Your task to perform on an android device: toggle notification dots Image 0: 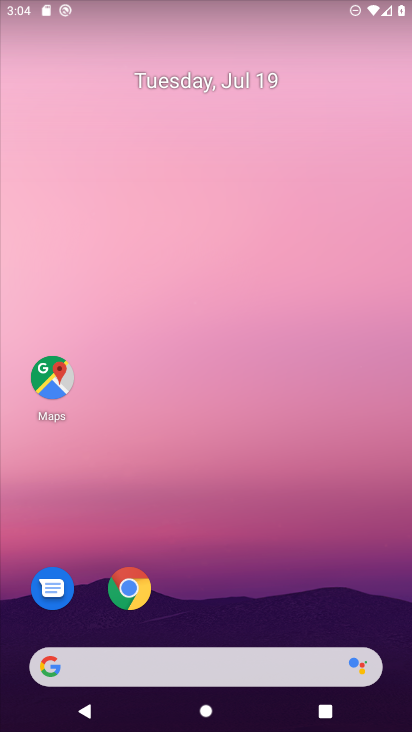
Step 0: drag from (183, 101) to (230, 45)
Your task to perform on an android device: toggle notification dots Image 1: 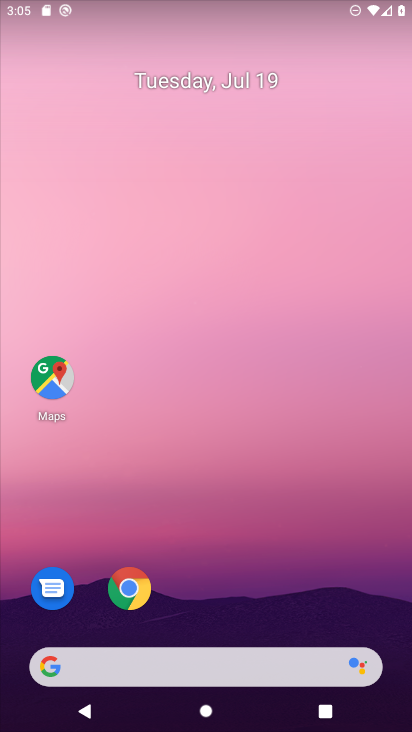
Step 1: click (199, 638)
Your task to perform on an android device: toggle notification dots Image 2: 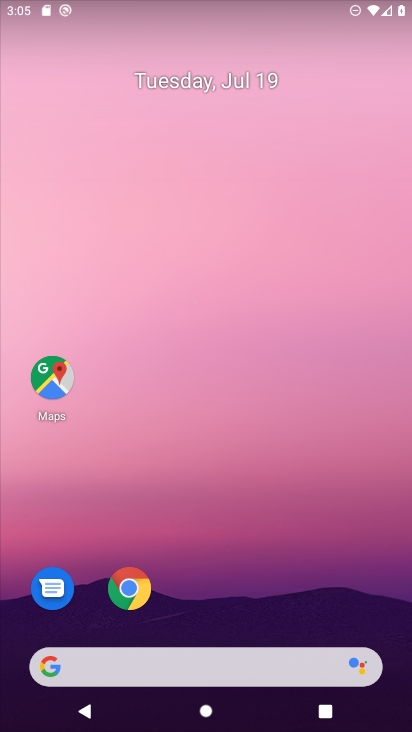
Step 2: drag from (197, 606) to (193, 14)
Your task to perform on an android device: toggle notification dots Image 3: 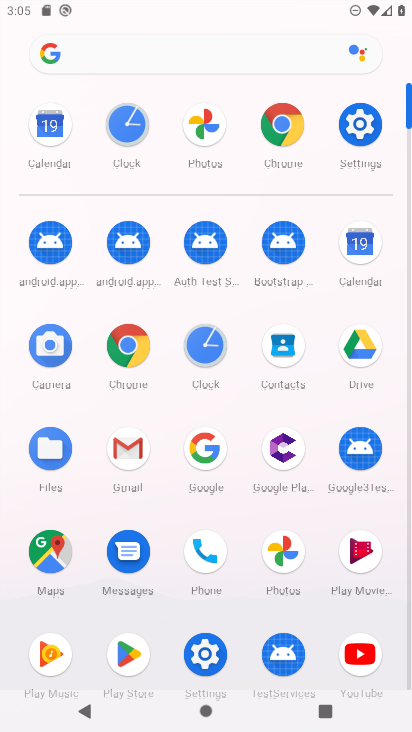
Step 3: click (353, 137)
Your task to perform on an android device: toggle notification dots Image 4: 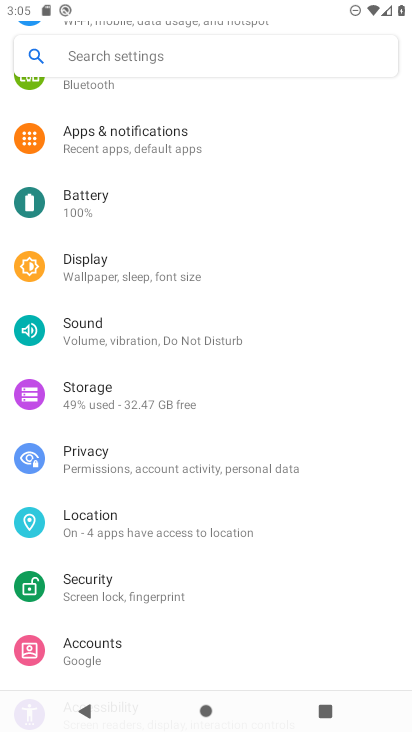
Step 4: drag from (155, 619) to (152, 401)
Your task to perform on an android device: toggle notification dots Image 5: 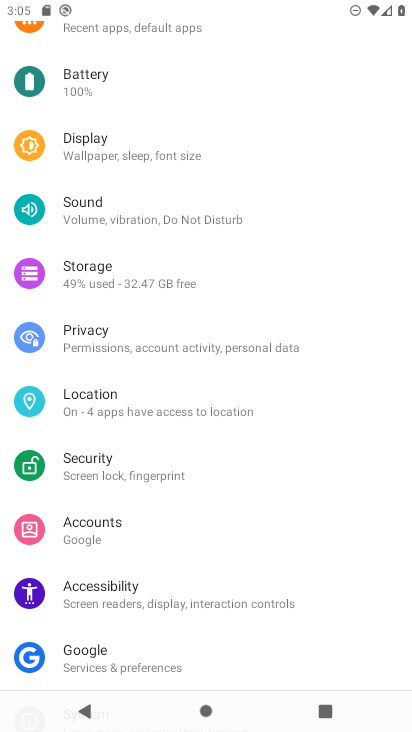
Step 5: drag from (236, 591) to (233, 412)
Your task to perform on an android device: toggle notification dots Image 6: 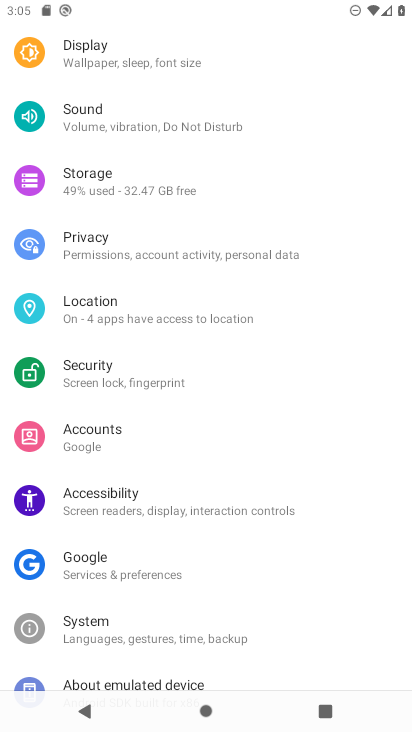
Step 6: drag from (150, 298) to (172, 714)
Your task to perform on an android device: toggle notification dots Image 7: 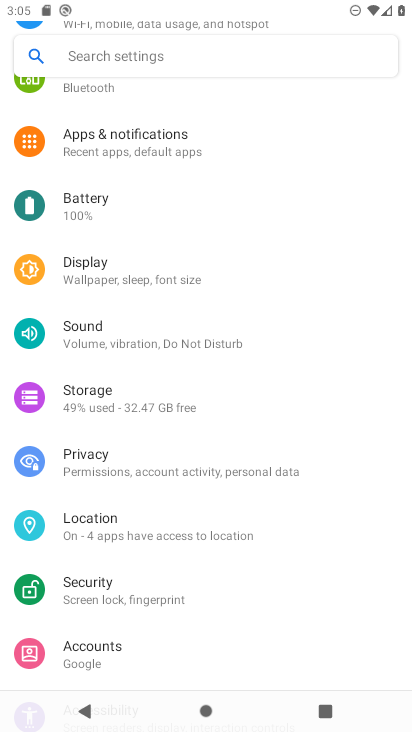
Step 7: click (151, 156)
Your task to perform on an android device: toggle notification dots Image 8: 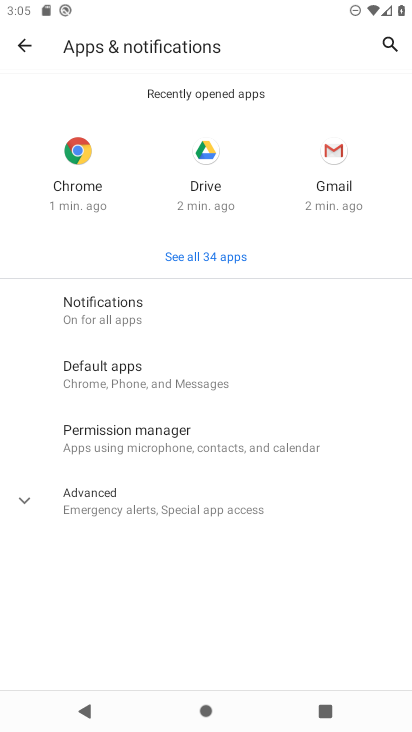
Step 8: click (89, 312)
Your task to perform on an android device: toggle notification dots Image 9: 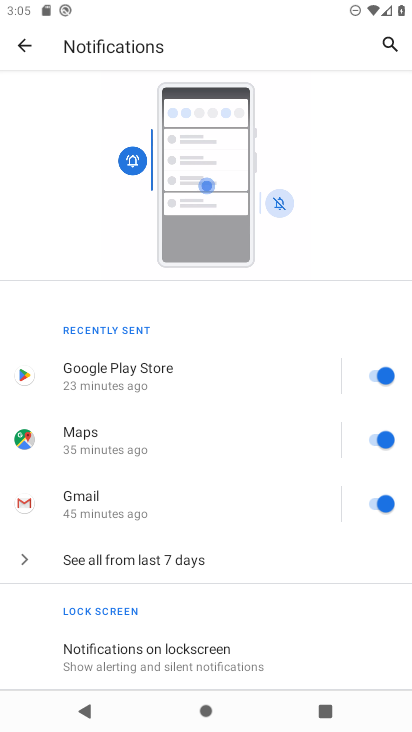
Step 9: drag from (357, 641) to (321, 367)
Your task to perform on an android device: toggle notification dots Image 10: 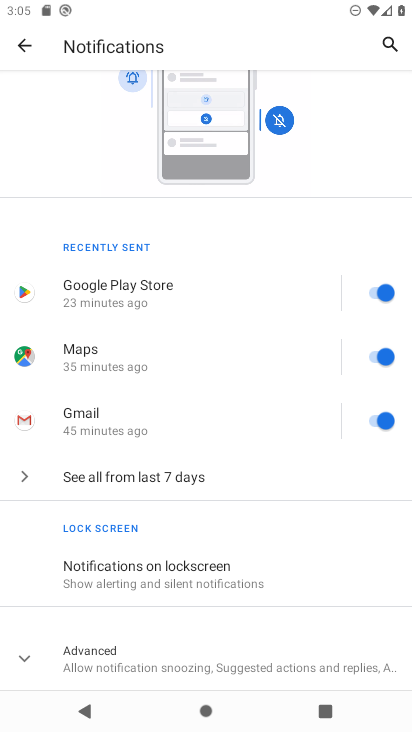
Step 10: click (158, 660)
Your task to perform on an android device: toggle notification dots Image 11: 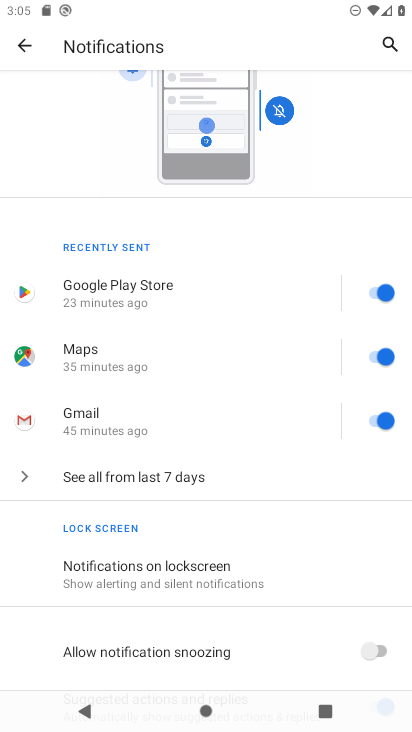
Step 11: drag from (254, 586) to (271, 355)
Your task to perform on an android device: toggle notification dots Image 12: 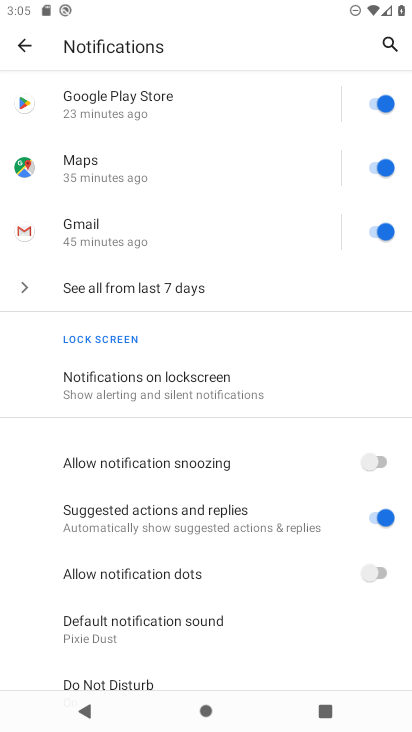
Step 12: click (381, 570)
Your task to perform on an android device: toggle notification dots Image 13: 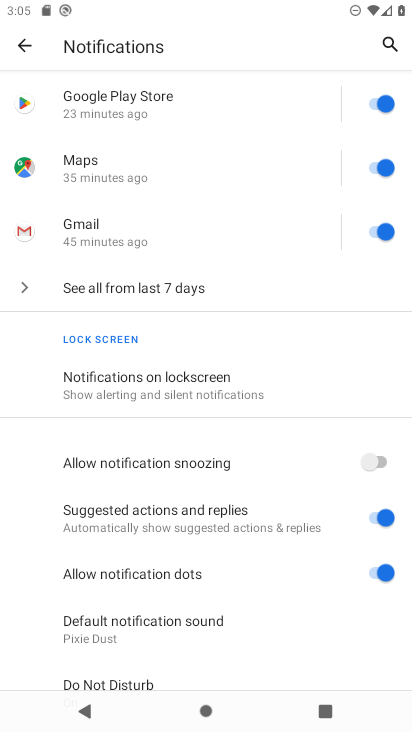
Step 13: task complete